Your task to perform on an android device: Open Yahoo.com Image 0: 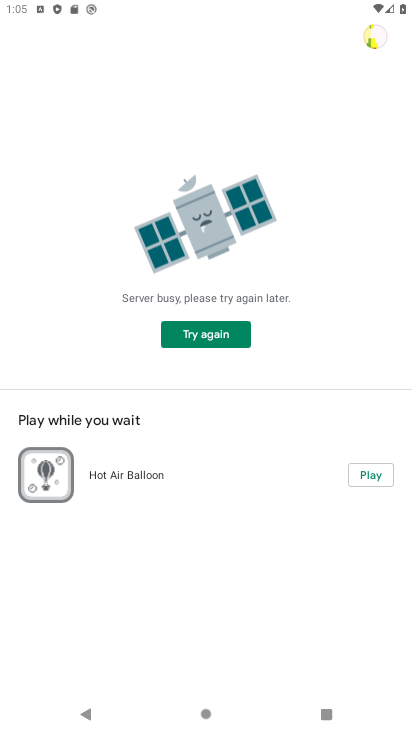
Step 0: press home button
Your task to perform on an android device: Open Yahoo.com Image 1: 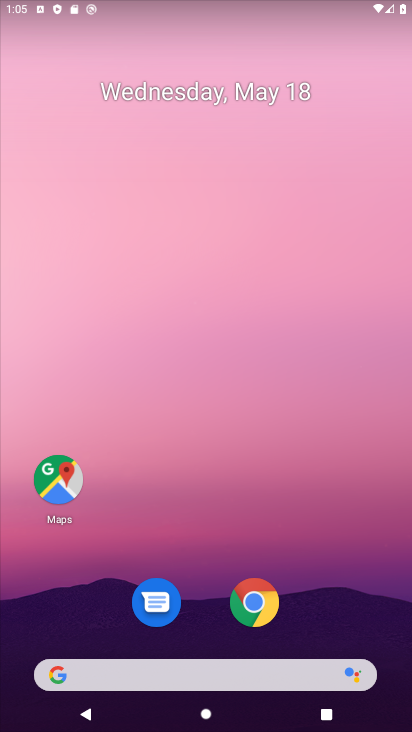
Step 1: click (93, 670)
Your task to perform on an android device: Open Yahoo.com Image 2: 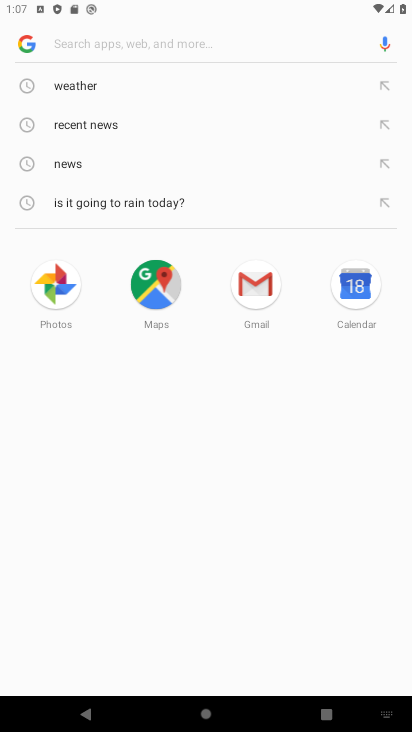
Step 2: type "yahoo.com"
Your task to perform on an android device: Open Yahoo.com Image 3: 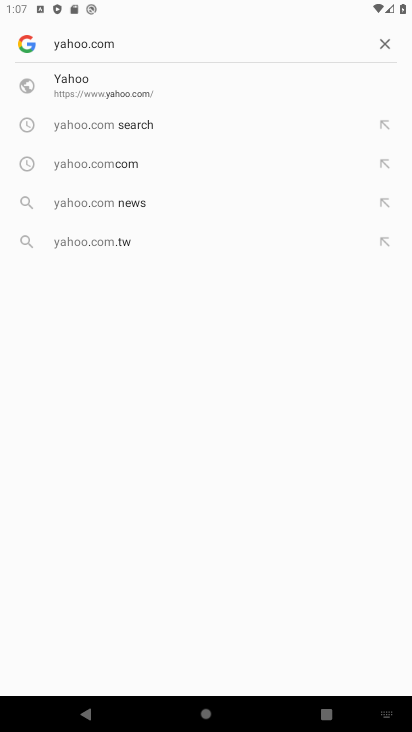
Step 3: click (114, 87)
Your task to perform on an android device: Open Yahoo.com Image 4: 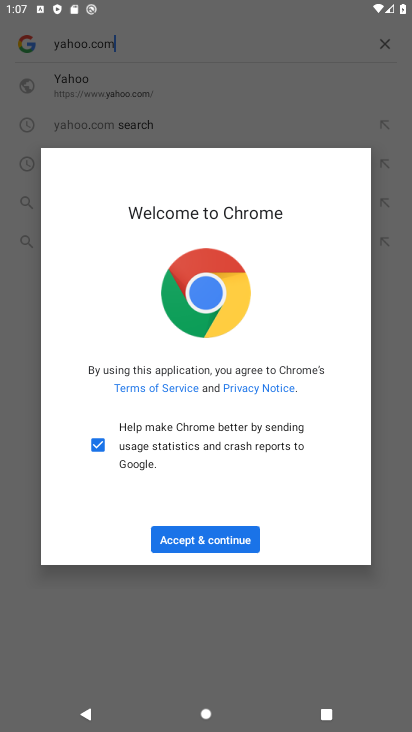
Step 4: click (216, 540)
Your task to perform on an android device: Open Yahoo.com Image 5: 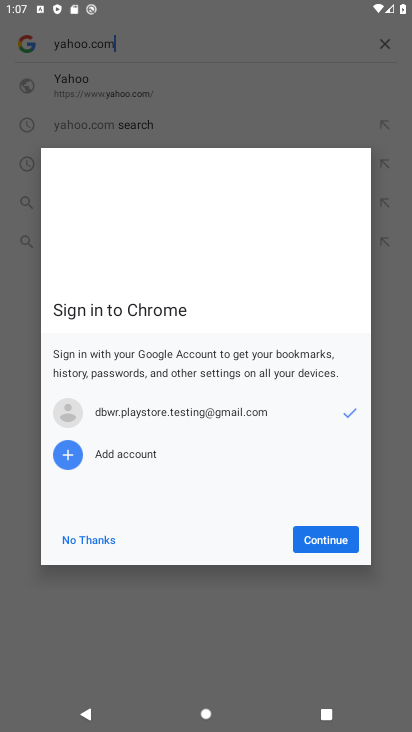
Step 5: click (329, 542)
Your task to perform on an android device: Open Yahoo.com Image 6: 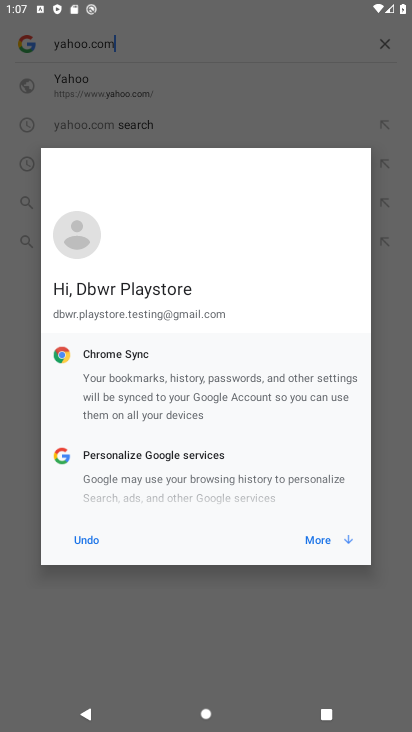
Step 6: click (333, 543)
Your task to perform on an android device: Open Yahoo.com Image 7: 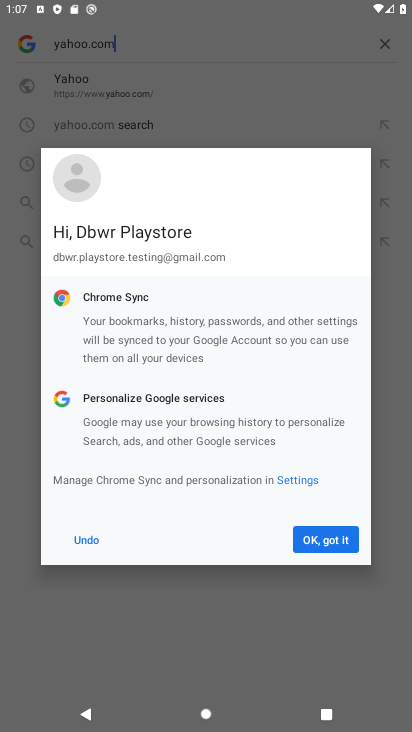
Step 7: click (333, 541)
Your task to perform on an android device: Open Yahoo.com Image 8: 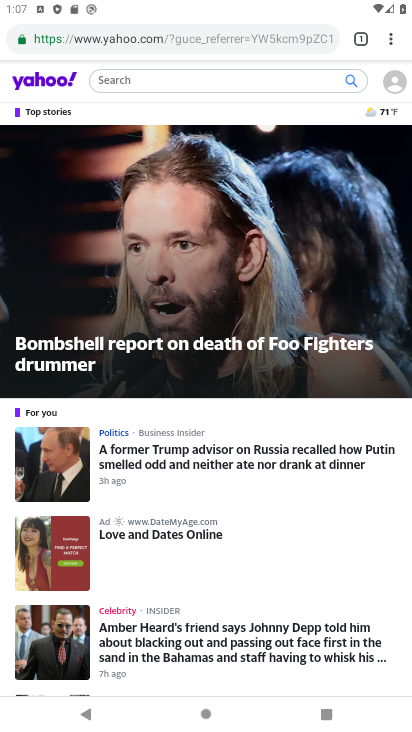
Step 8: task complete